Your task to perform on an android device: delete the emails in spam in the gmail app Image 0: 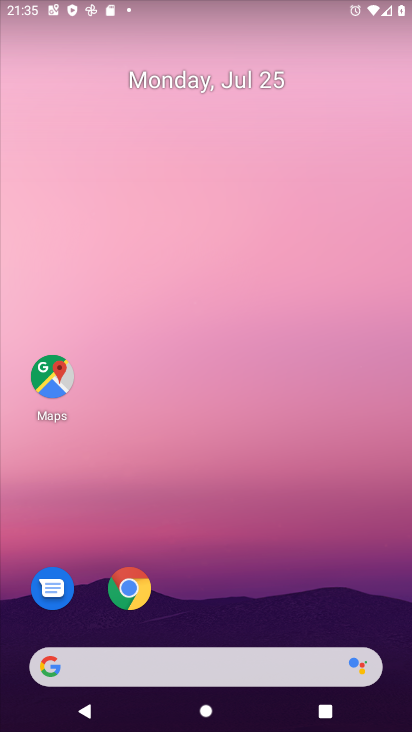
Step 0: drag from (215, 649) to (202, 235)
Your task to perform on an android device: delete the emails in spam in the gmail app Image 1: 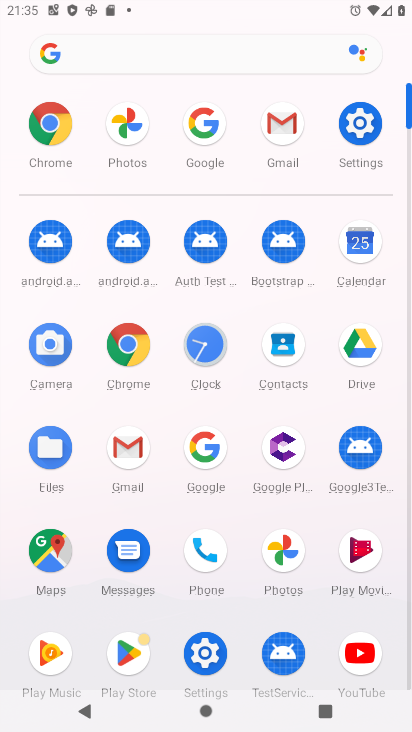
Step 1: click (292, 126)
Your task to perform on an android device: delete the emails in spam in the gmail app Image 2: 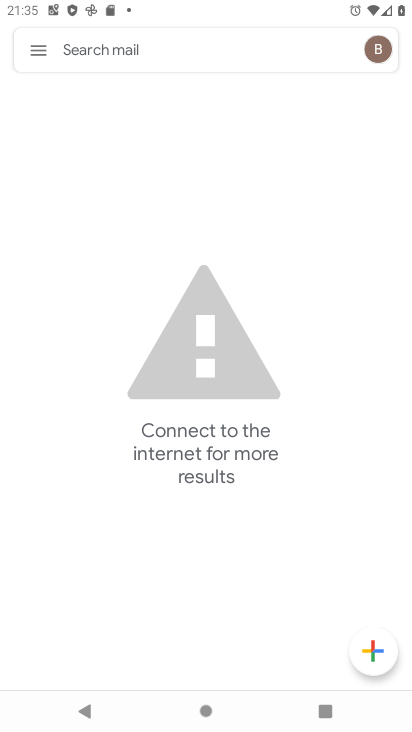
Step 2: drag from (194, 154) to (176, 689)
Your task to perform on an android device: delete the emails in spam in the gmail app Image 3: 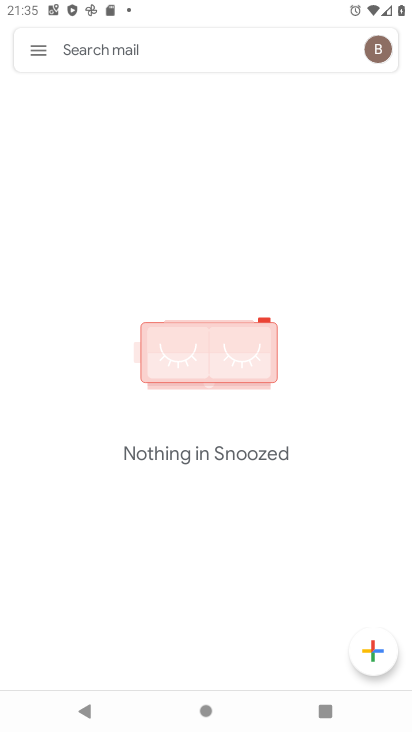
Step 3: click (32, 51)
Your task to perform on an android device: delete the emails in spam in the gmail app Image 4: 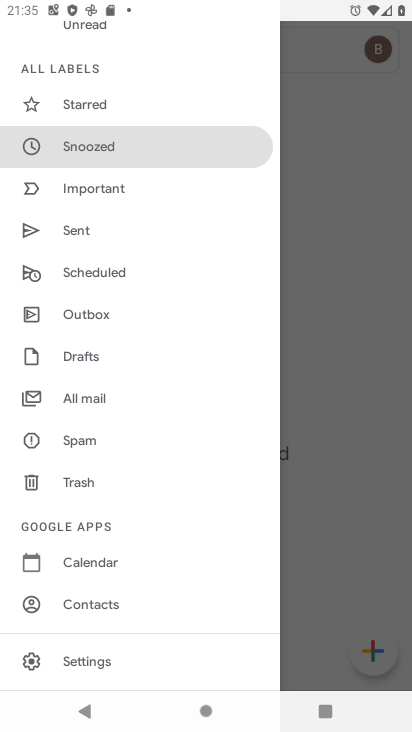
Step 4: click (92, 434)
Your task to perform on an android device: delete the emails in spam in the gmail app Image 5: 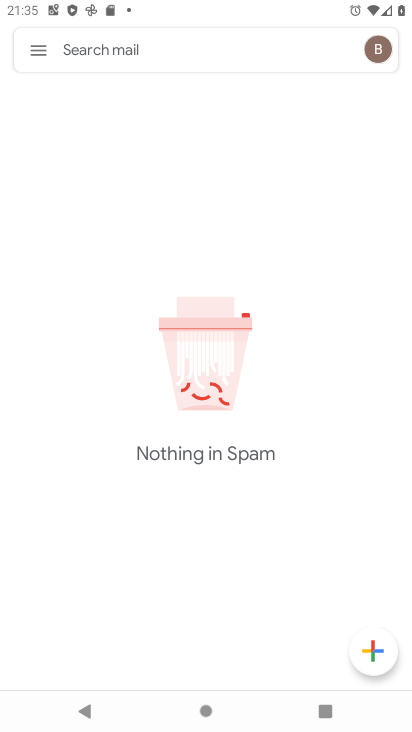
Step 5: task complete